Your task to perform on an android device: Open settings Image 0: 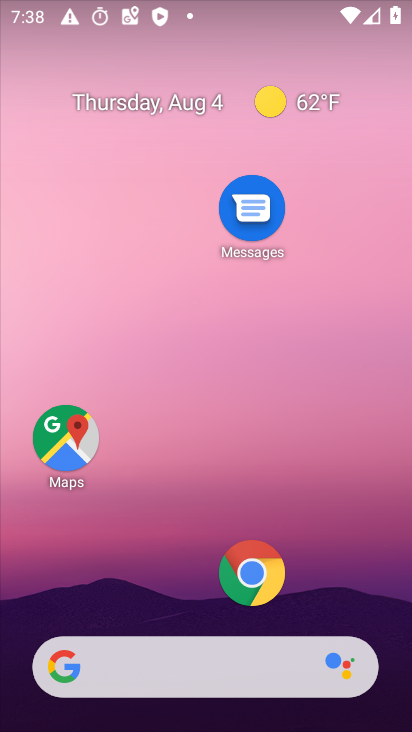
Step 0: drag from (174, 574) to (202, 90)
Your task to perform on an android device: Open settings Image 1: 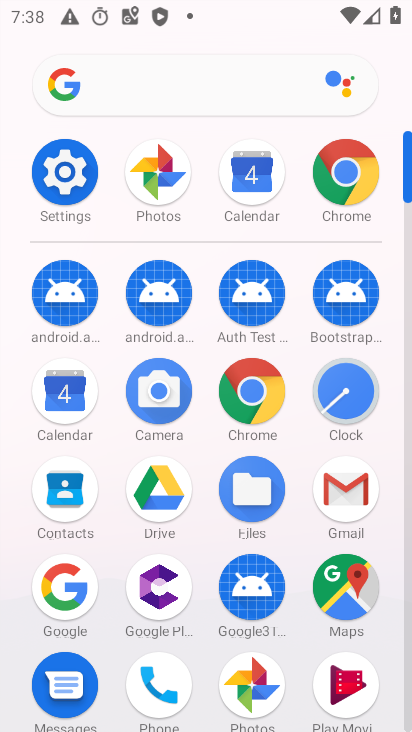
Step 1: click (64, 167)
Your task to perform on an android device: Open settings Image 2: 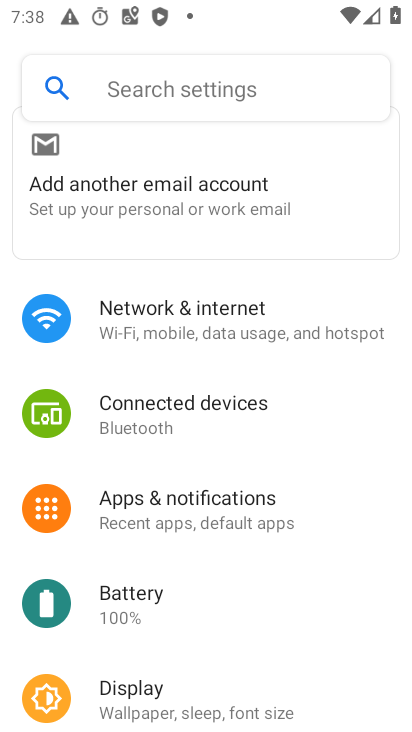
Step 2: task complete